Your task to perform on an android device: Add "energizer triple a" to the cart on amazon.com, then select checkout. Image 0: 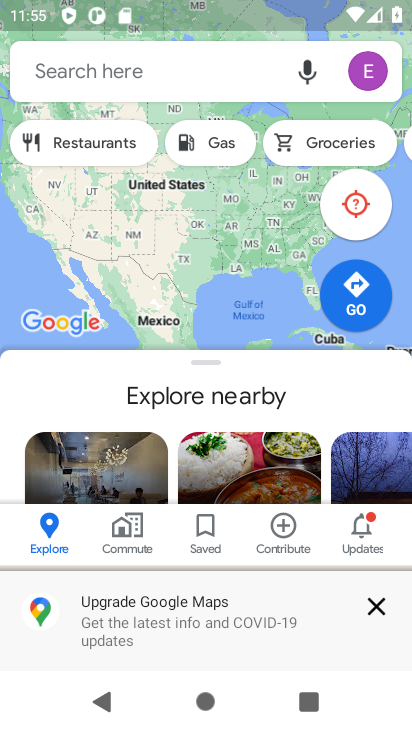
Step 0: press home button
Your task to perform on an android device: Add "energizer triple a" to the cart on amazon.com, then select checkout. Image 1: 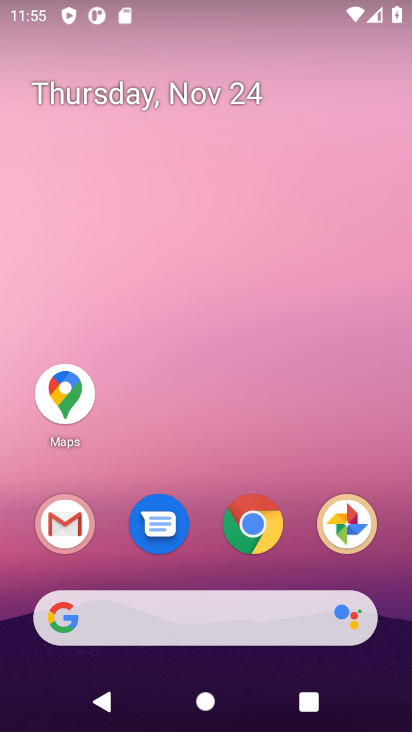
Step 1: click (258, 529)
Your task to perform on an android device: Add "energizer triple a" to the cart on amazon.com, then select checkout. Image 2: 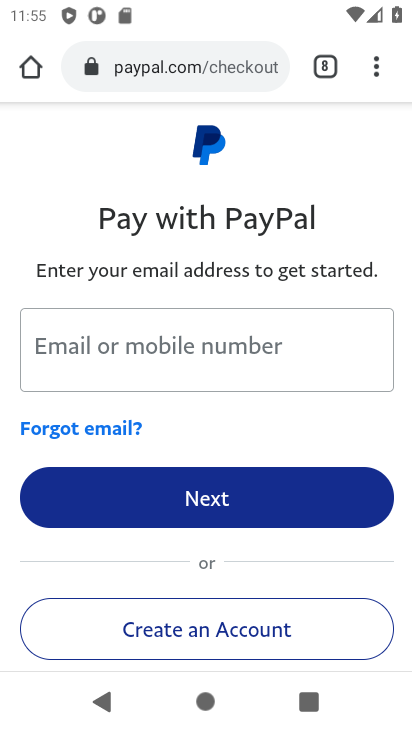
Step 2: click (197, 69)
Your task to perform on an android device: Add "energizer triple a" to the cart on amazon.com, then select checkout. Image 3: 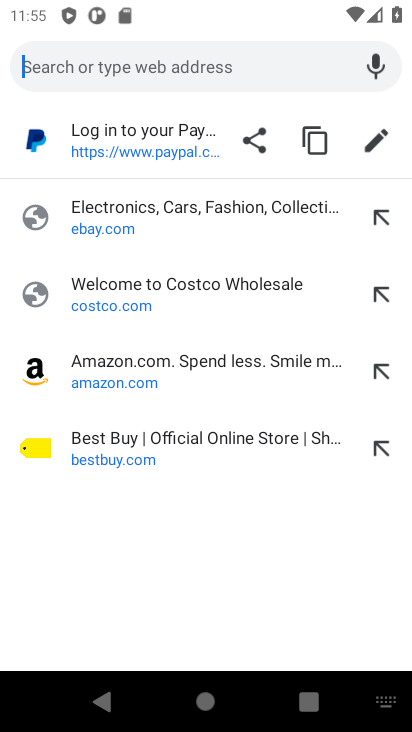
Step 3: click (109, 376)
Your task to perform on an android device: Add "energizer triple a" to the cart on amazon.com, then select checkout. Image 4: 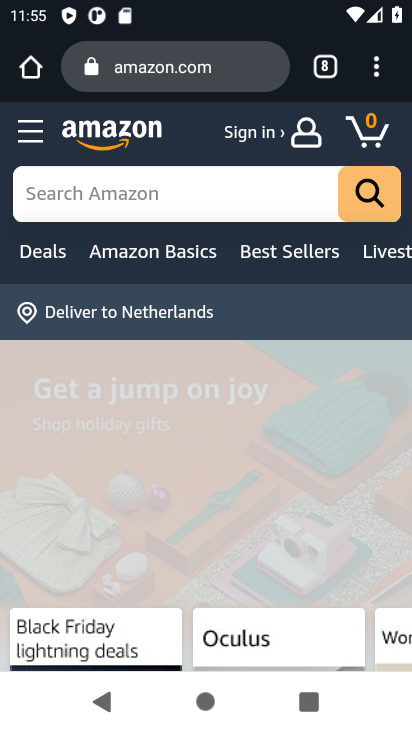
Step 4: click (85, 192)
Your task to perform on an android device: Add "energizer triple a" to the cart on amazon.com, then select checkout. Image 5: 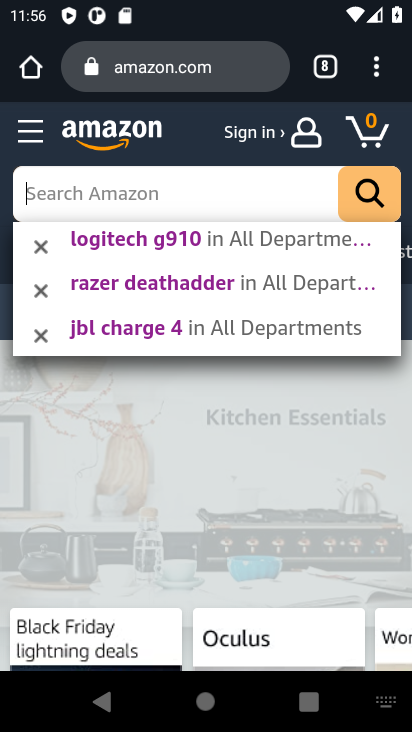
Step 5: type "energizer triple a"
Your task to perform on an android device: Add "energizer triple a" to the cart on amazon.com, then select checkout. Image 6: 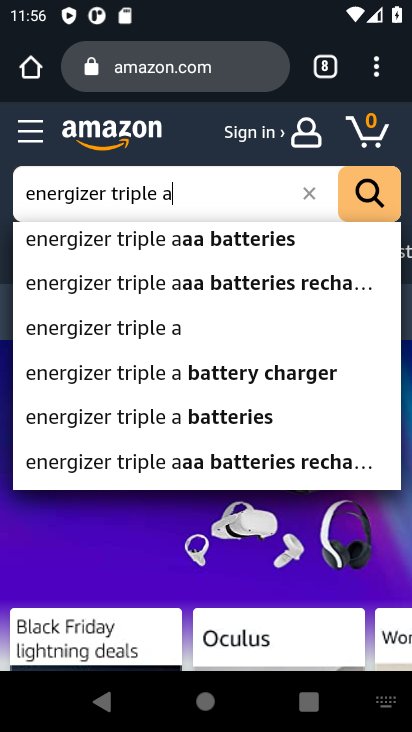
Step 6: click (104, 325)
Your task to perform on an android device: Add "energizer triple a" to the cart on amazon.com, then select checkout. Image 7: 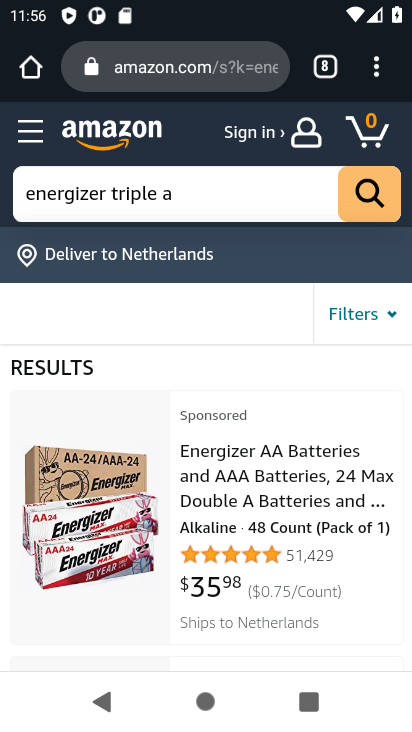
Step 7: click (85, 538)
Your task to perform on an android device: Add "energizer triple a" to the cart on amazon.com, then select checkout. Image 8: 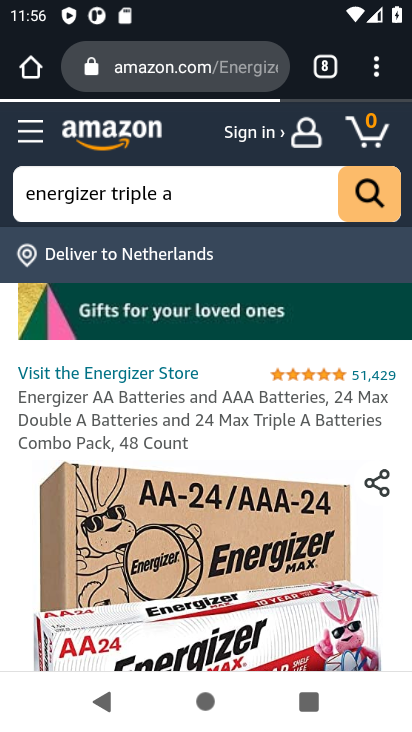
Step 8: drag from (85, 538) to (91, 198)
Your task to perform on an android device: Add "energizer triple a" to the cart on amazon.com, then select checkout. Image 9: 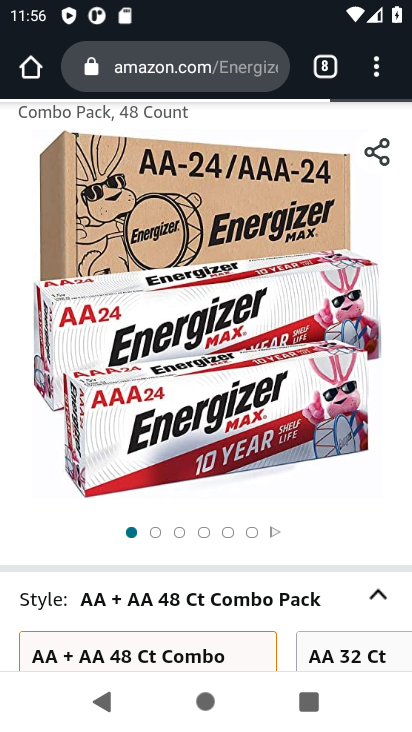
Step 9: drag from (146, 410) to (140, 173)
Your task to perform on an android device: Add "energizer triple a" to the cart on amazon.com, then select checkout. Image 10: 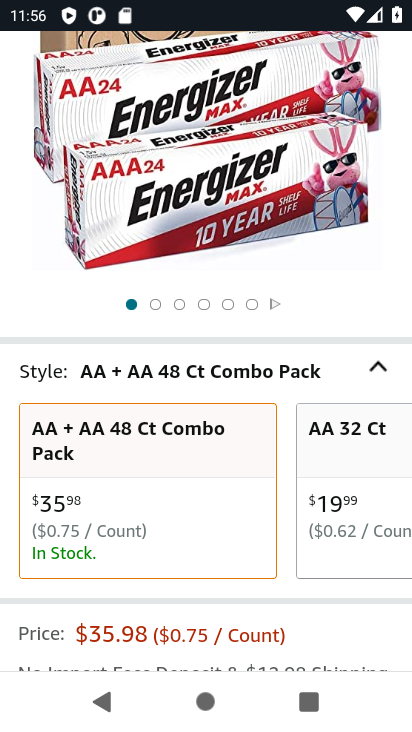
Step 10: drag from (162, 495) to (152, 244)
Your task to perform on an android device: Add "energizer triple a" to the cart on amazon.com, then select checkout. Image 11: 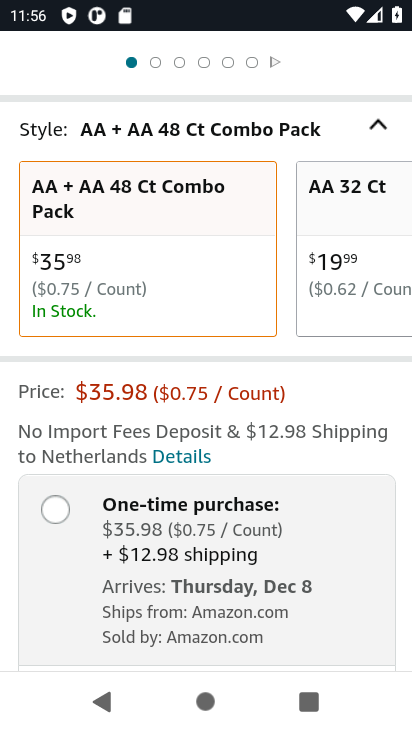
Step 11: drag from (150, 515) to (143, 235)
Your task to perform on an android device: Add "energizer triple a" to the cart on amazon.com, then select checkout. Image 12: 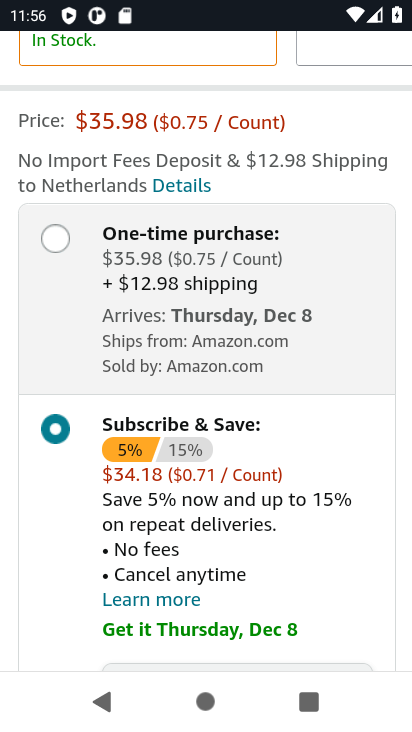
Step 12: click (64, 241)
Your task to perform on an android device: Add "energizer triple a" to the cart on amazon.com, then select checkout. Image 13: 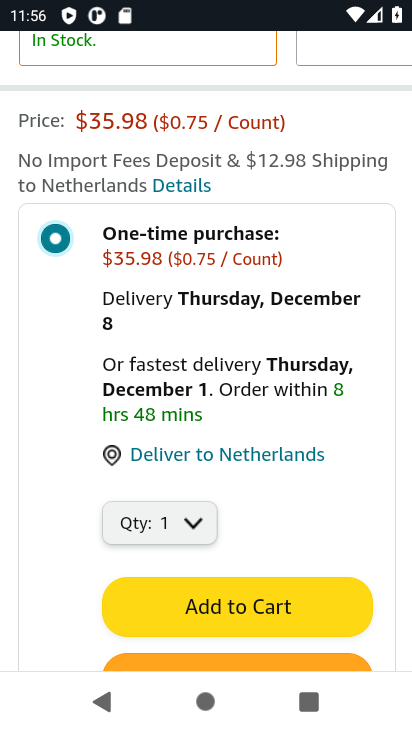
Step 13: click (251, 604)
Your task to perform on an android device: Add "energizer triple a" to the cart on amazon.com, then select checkout. Image 14: 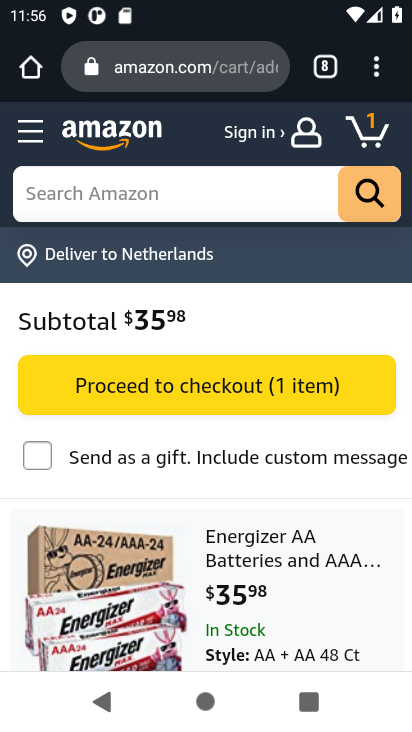
Step 14: click (212, 394)
Your task to perform on an android device: Add "energizer triple a" to the cart on amazon.com, then select checkout. Image 15: 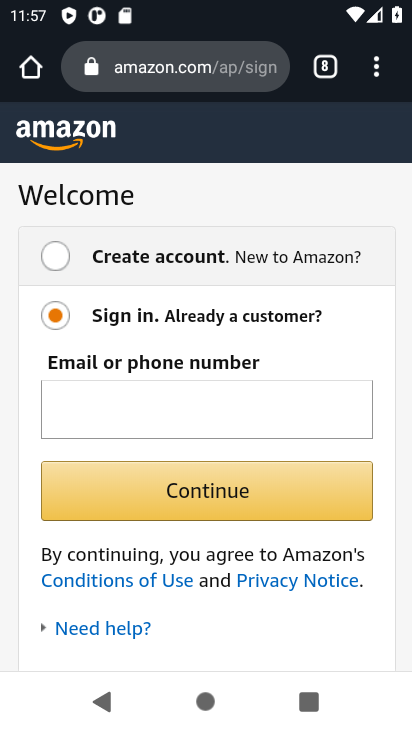
Step 15: task complete